Your task to perform on an android device: Go to CNN.com Image 0: 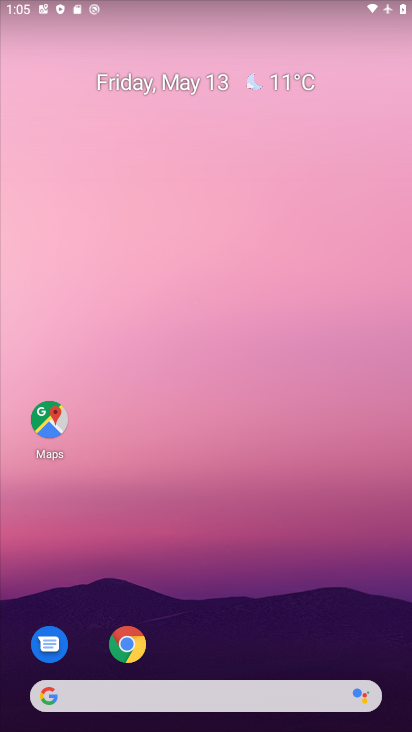
Step 0: click (124, 643)
Your task to perform on an android device: Go to CNN.com Image 1: 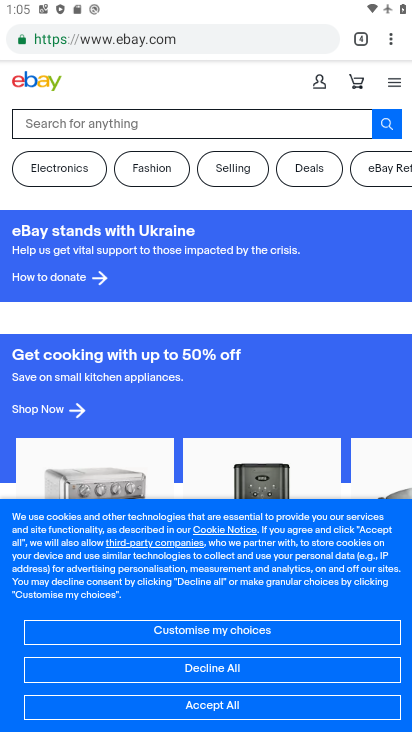
Step 1: click (391, 42)
Your task to perform on an android device: Go to CNN.com Image 2: 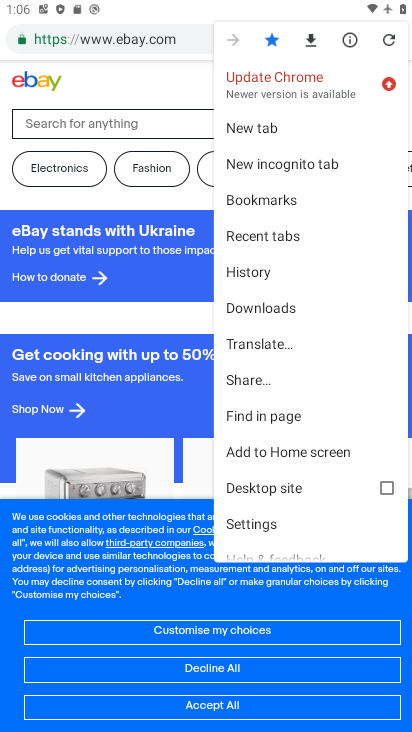
Step 2: click (253, 122)
Your task to perform on an android device: Go to CNN.com Image 3: 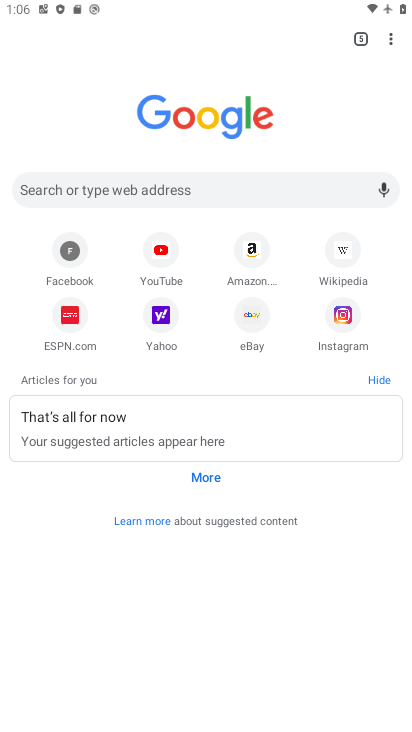
Step 3: click (114, 187)
Your task to perform on an android device: Go to CNN.com Image 4: 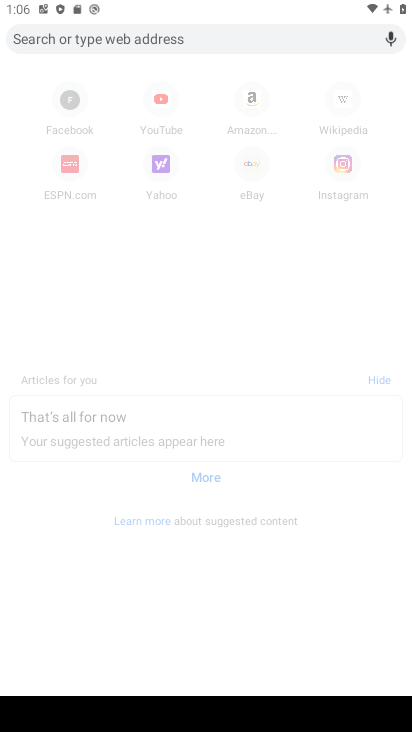
Step 4: type "CNN.com"
Your task to perform on an android device: Go to CNN.com Image 5: 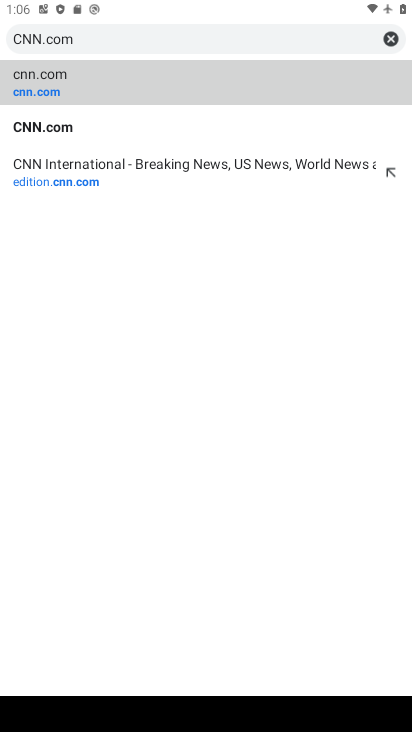
Step 5: click (47, 82)
Your task to perform on an android device: Go to CNN.com Image 6: 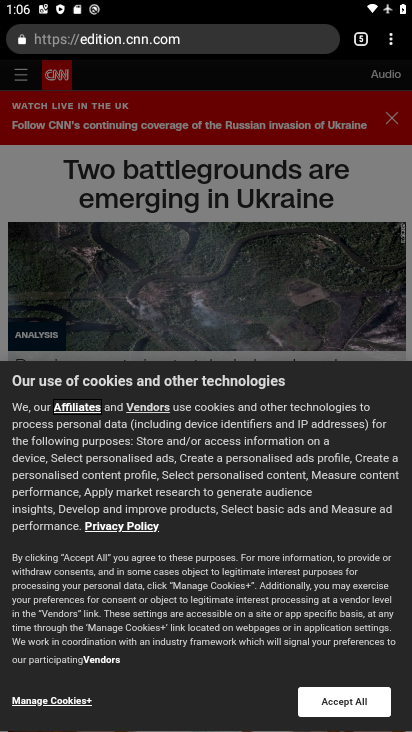
Step 6: task complete